Your task to perform on an android device: Go to Yahoo.com Image 0: 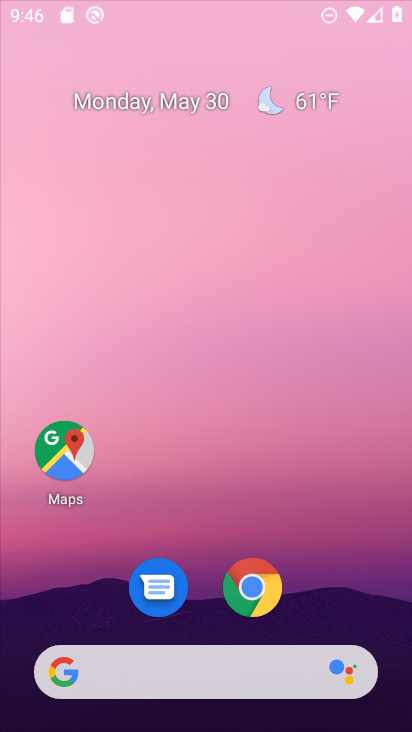
Step 0: drag from (253, 629) to (249, 0)
Your task to perform on an android device: Go to Yahoo.com Image 1: 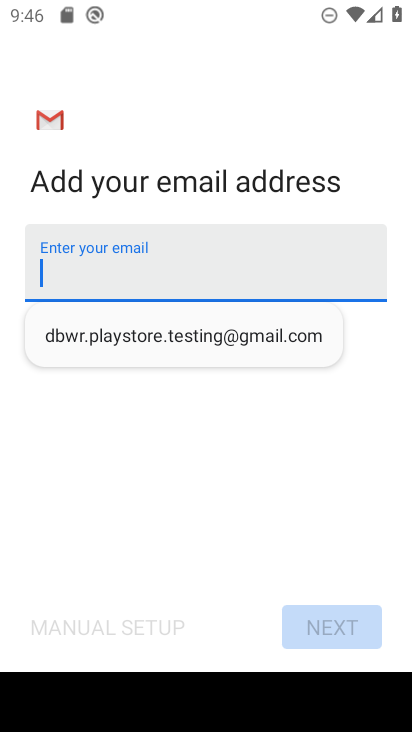
Step 1: press home button
Your task to perform on an android device: Go to Yahoo.com Image 2: 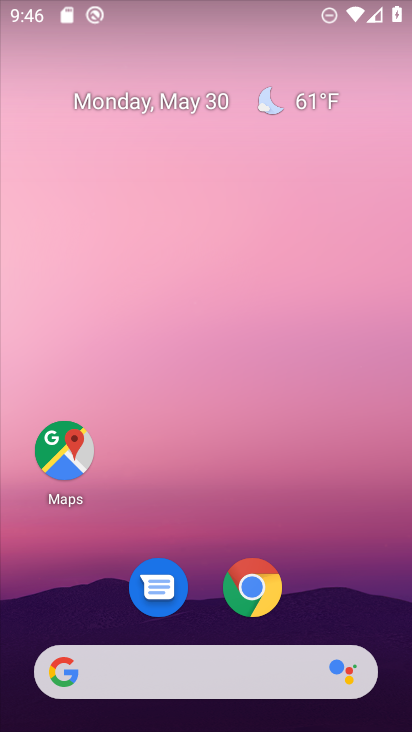
Step 2: click (250, 576)
Your task to perform on an android device: Go to Yahoo.com Image 3: 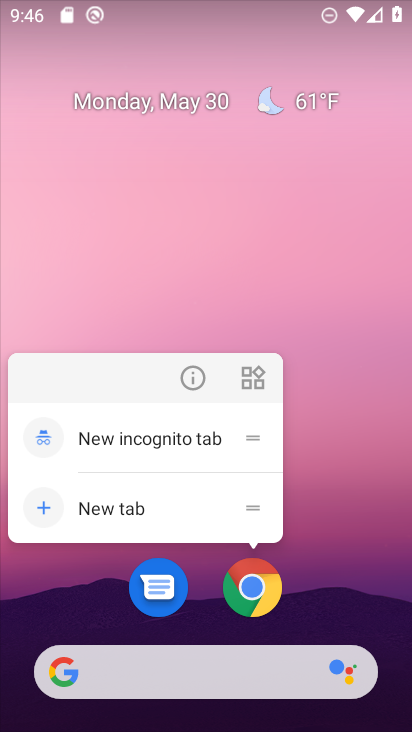
Step 3: click (263, 591)
Your task to perform on an android device: Go to Yahoo.com Image 4: 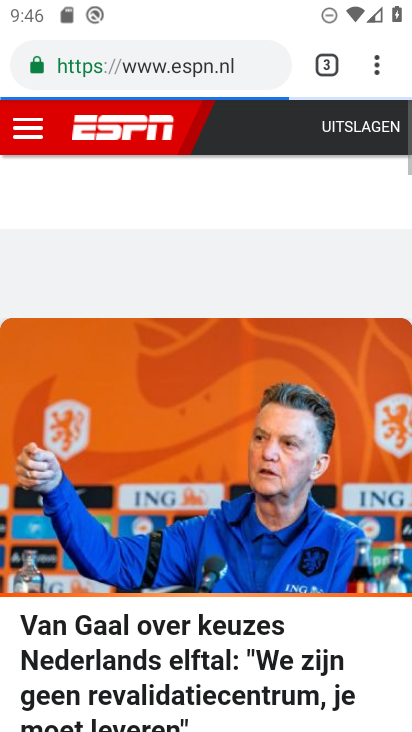
Step 4: click (331, 69)
Your task to perform on an android device: Go to Yahoo.com Image 5: 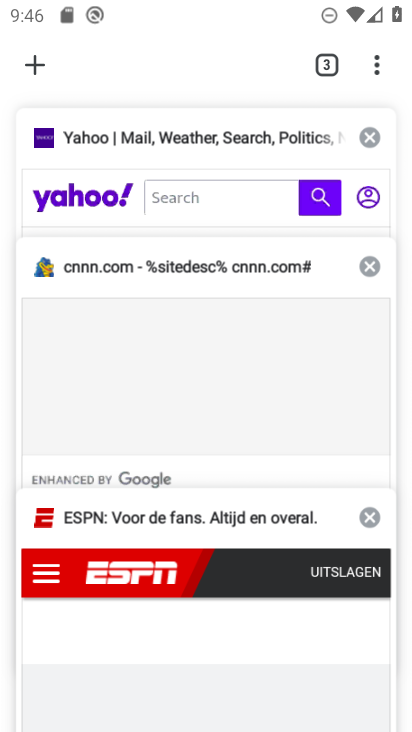
Step 5: click (101, 190)
Your task to perform on an android device: Go to Yahoo.com Image 6: 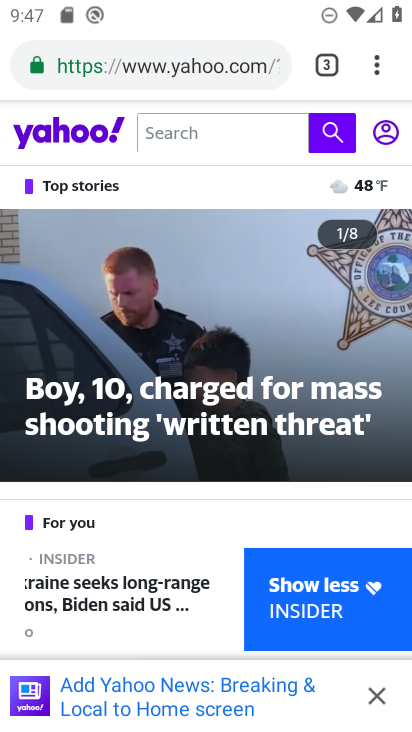
Step 6: task complete